Your task to perform on an android device: When is my next meeting? Image 0: 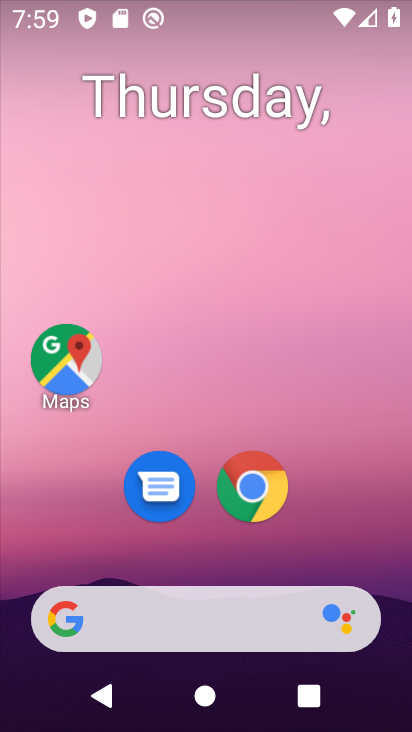
Step 0: drag from (143, 663) to (254, 118)
Your task to perform on an android device: When is my next meeting? Image 1: 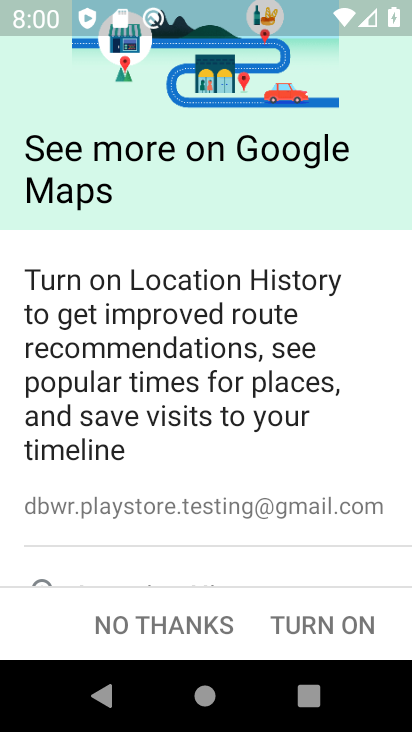
Step 1: click (350, 626)
Your task to perform on an android device: When is my next meeting? Image 2: 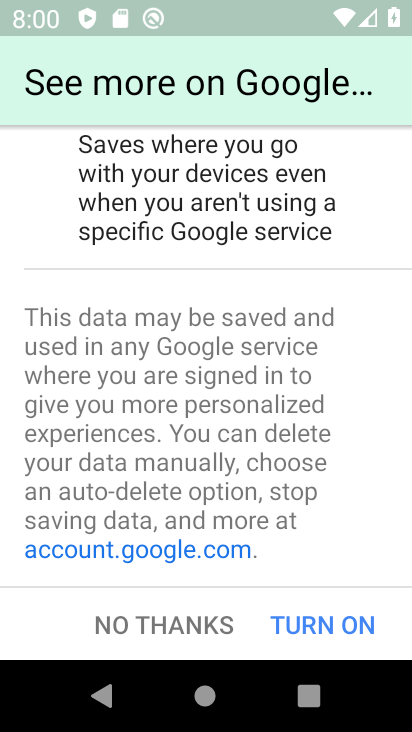
Step 2: click (350, 626)
Your task to perform on an android device: When is my next meeting? Image 3: 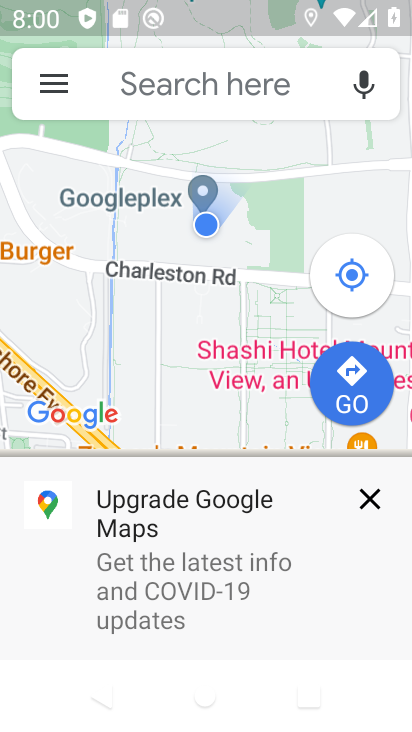
Step 3: click (380, 495)
Your task to perform on an android device: When is my next meeting? Image 4: 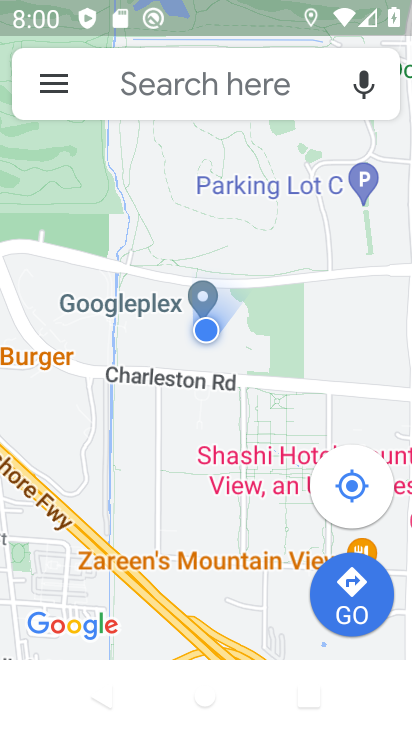
Step 4: press home button
Your task to perform on an android device: When is my next meeting? Image 5: 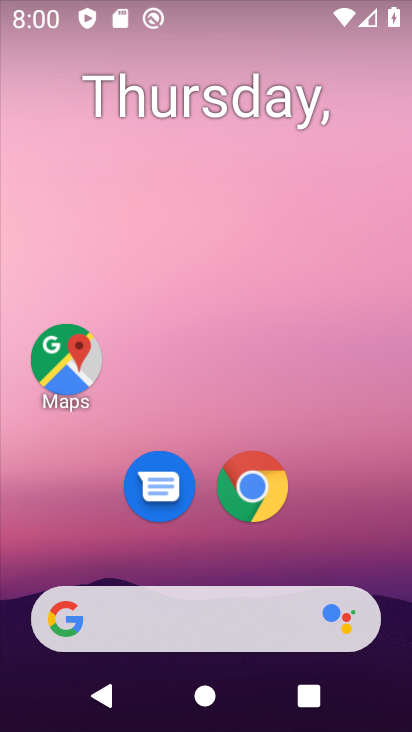
Step 5: drag from (181, 623) to (350, 2)
Your task to perform on an android device: When is my next meeting? Image 6: 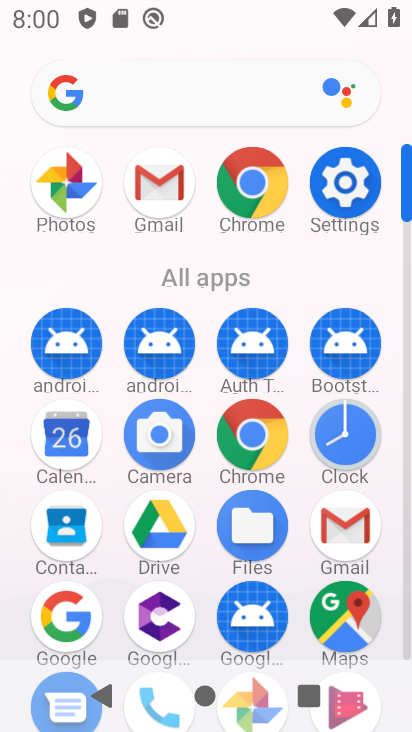
Step 6: click (77, 435)
Your task to perform on an android device: When is my next meeting? Image 7: 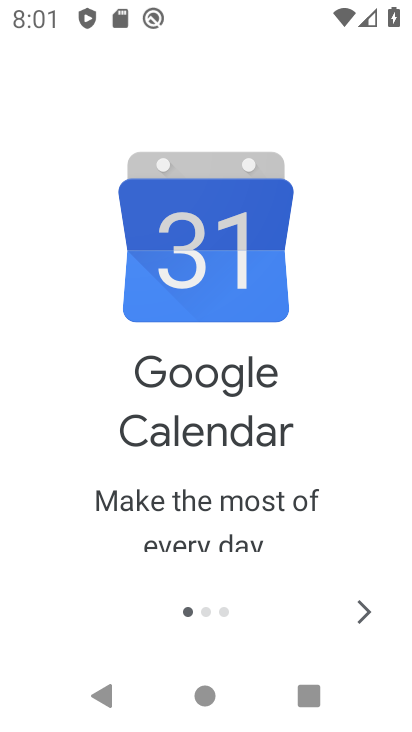
Step 7: click (377, 593)
Your task to perform on an android device: When is my next meeting? Image 8: 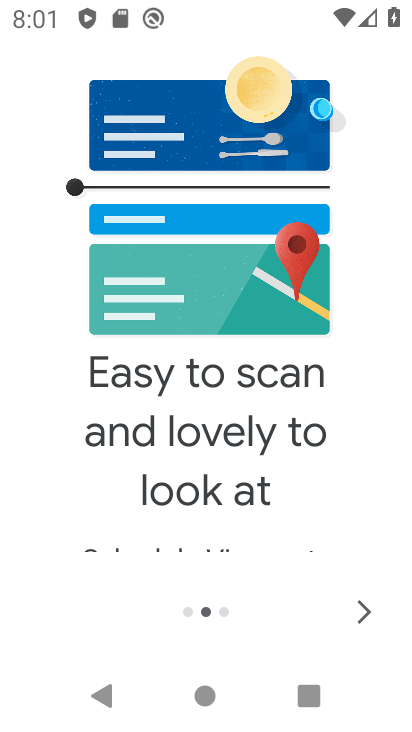
Step 8: click (370, 625)
Your task to perform on an android device: When is my next meeting? Image 9: 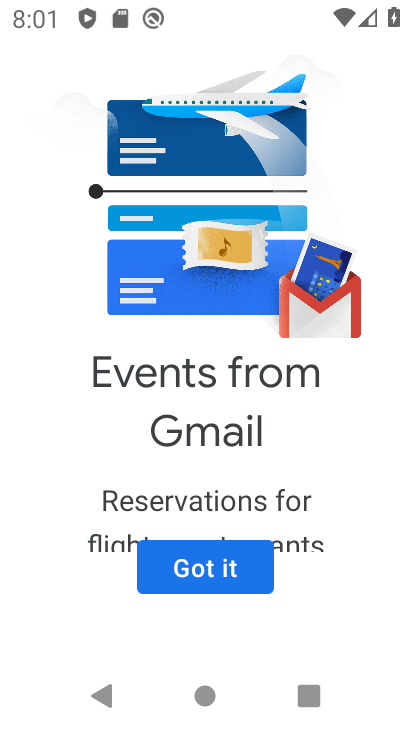
Step 9: click (255, 577)
Your task to perform on an android device: When is my next meeting? Image 10: 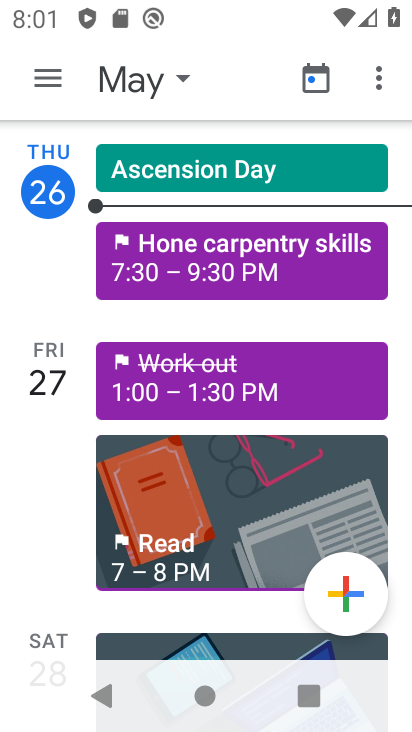
Step 10: click (47, 75)
Your task to perform on an android device: When is my next meeting? Image 11: 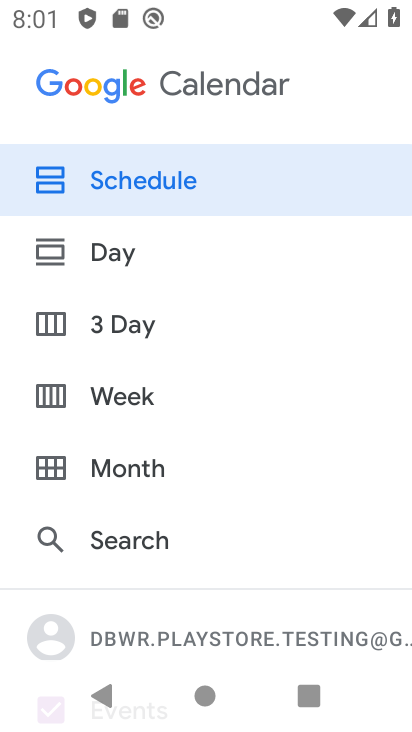
Step 11: drag from (161, 503) to (238, 151)
Your task to perform on an android device: When is my next meeting? Image 12: 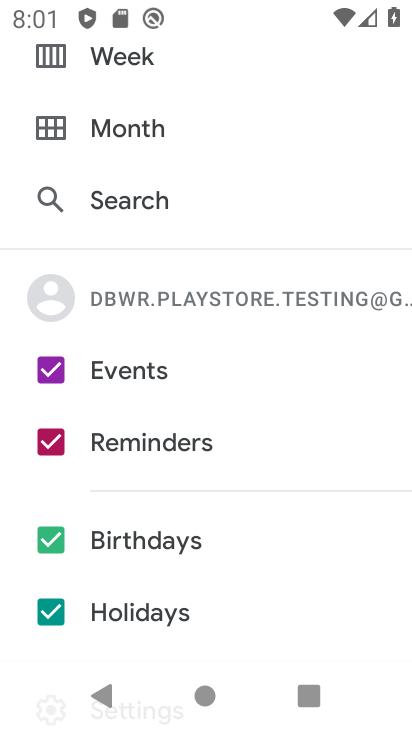
Step 12: click (68, 612)
Your task to perform on an android device: When is my next meeting? Image 13: 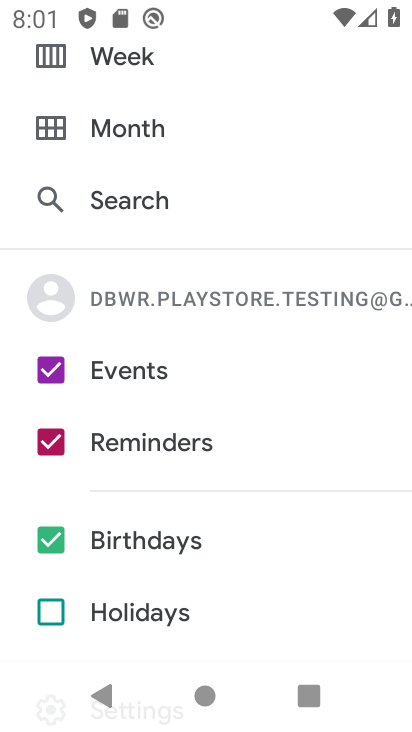
Step 13: click (67, 536)
Your task to perform on an android device: When is my next meeting? Image 14: 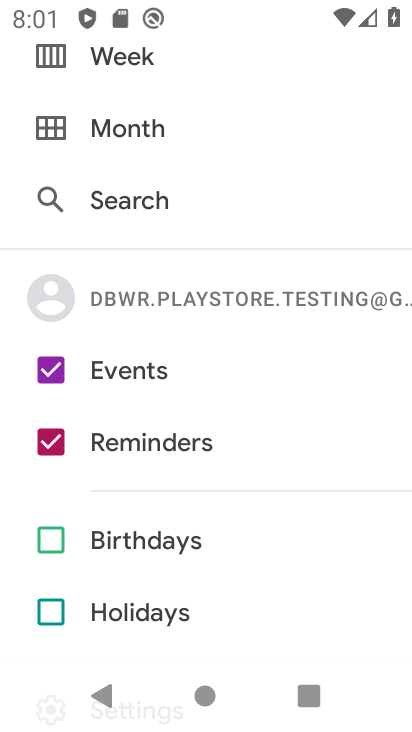
Step 14: task complete